Your task to perform on an android device: What's a good restaurant in Chicago? Image 0: 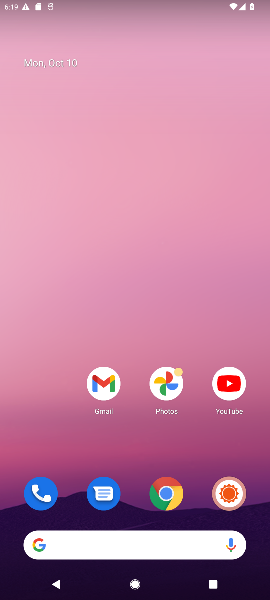
Step 0: drag from (123, 484) to (140, 48)
Your task to perform on an android device: What's a good restaurant in Chicago? Image 1: 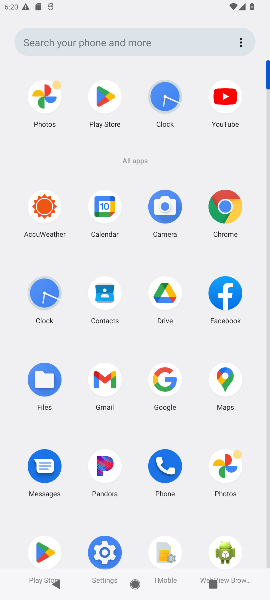
Step 1: click (102, 96)
Your task to perform on an android device: What's a good restaurant in Chicago? Image 2: 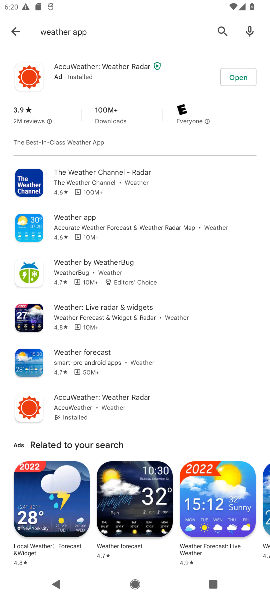
Step 2: click (16, 33)
Your task to perform on an android device: What's a good restaurant in Chicago? Image 3: 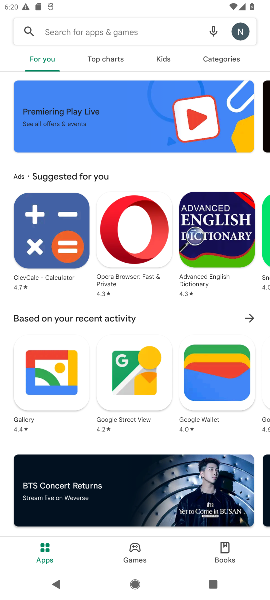
Step 3: click (109, 34)
Your task to perform on an android device: What's a good restaurant in Chicago? Image 4: 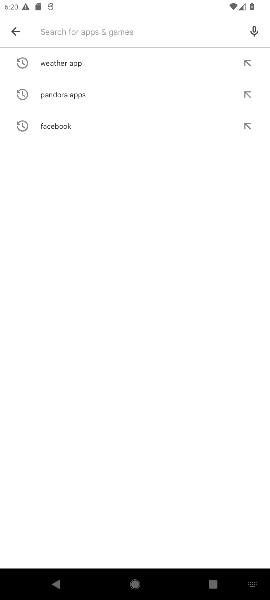
Step 4: type "a good restaurant in Chicago?"
Your task to perform on an android device: What's a good restaurant in Chicago? Image 5: 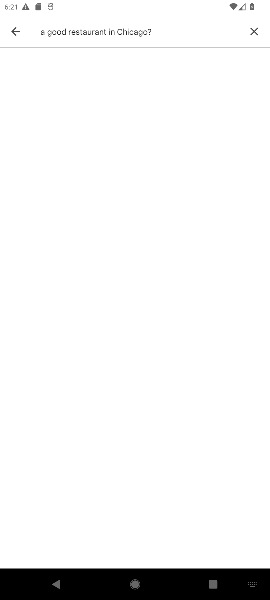
Step 5: click (14, 34)
Your task to perform on an android device: What's a good restaurant in Chicago? Image 6: 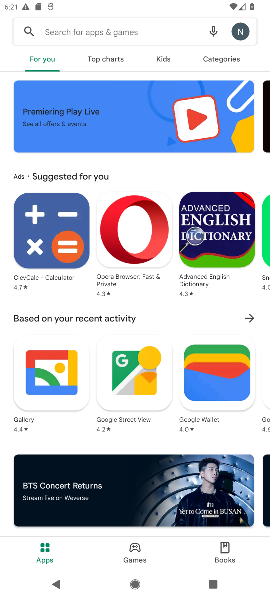
Step 6: click (159, 30)
Your task to perform on an android device: What's a good restaurant in Chicago? Image 7: 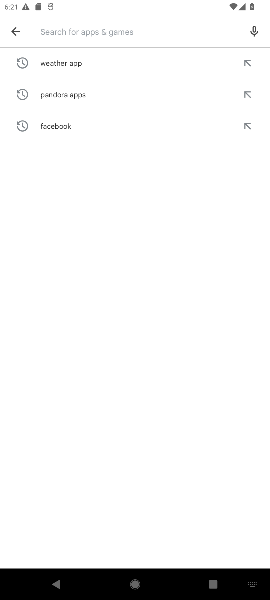
Step 7: type "good restaurant in Chicago?"
Your task to perform on an android device: What's a good restaurant in Chicago? Image 8: 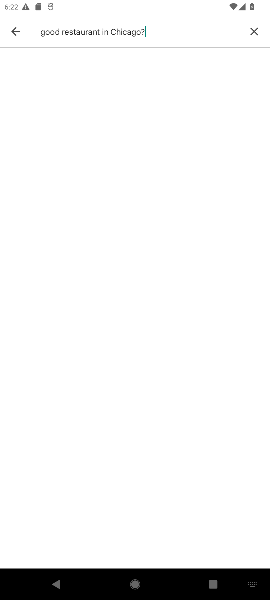
Step 8: click (9, 34)
Your task to perform on an android device: What's a good restaurant in Chicago? Image 9: 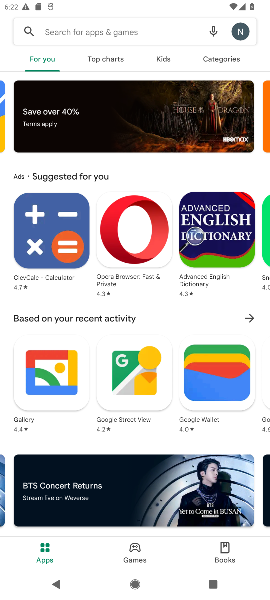
Step 9: click (104, 32)
Your task to perform on an android device: What's a good restaurant in Chicago? Image 10: 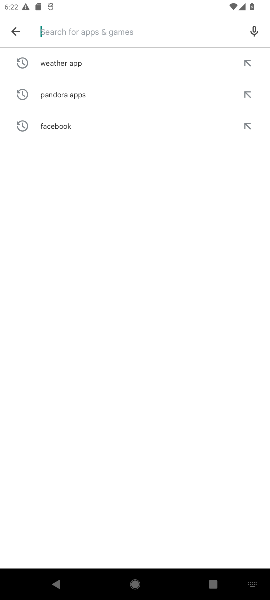
Step 10: type "What's a good restaurant in Chicago?"
Your task to perform on an android device: What's a good restaurant in Chicago? Image 11: 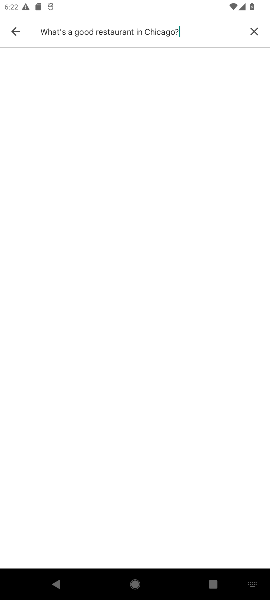
Step 11: task complete